Your task to perform on an android device: turn on wifi Image 0: 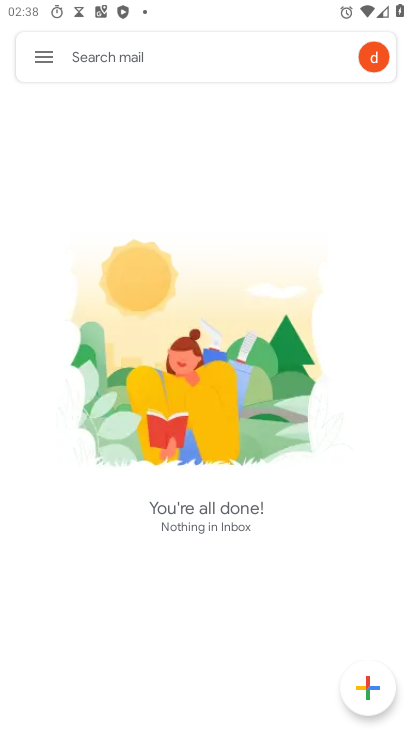
Step 0: press home button
Your task to perform on an android device: turn on wifi Image 1: 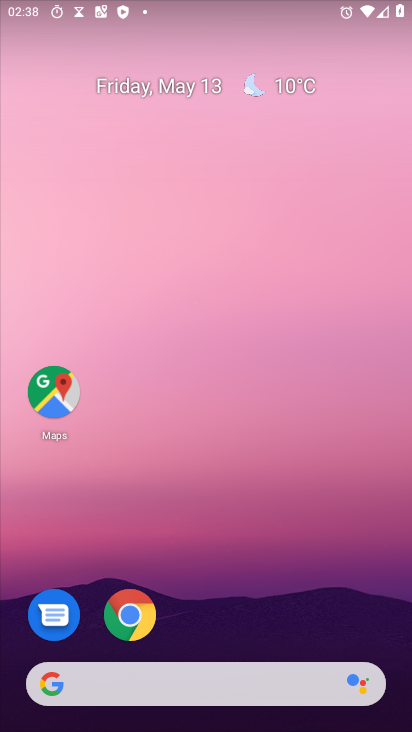
Step 1: drag from (184, 631) to (156, 51)
Your task to perform on an android device: turn on wifi Image 2: 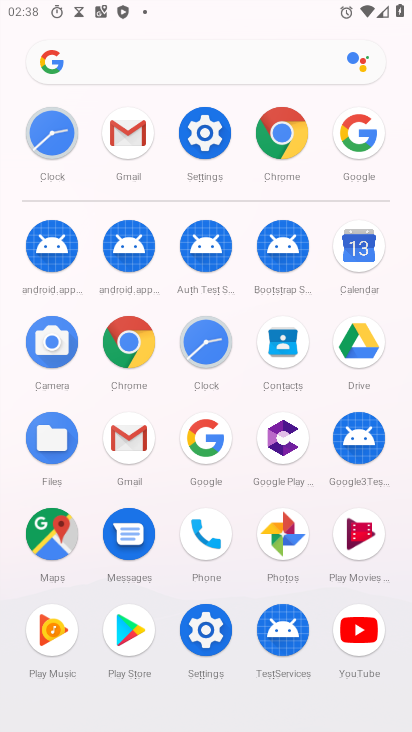
Step 2: click (217, 124)
Your task to perform on an android device: turn on wifi Image 3: 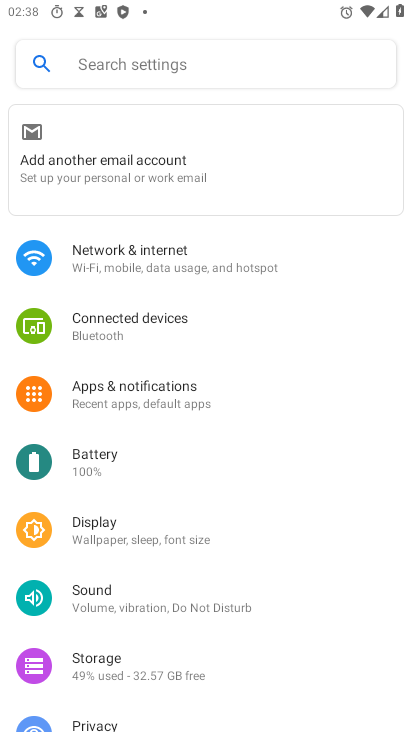
Step 3: click (180, 268)
Your task to perform on an android device: turn on wifi Image 4: 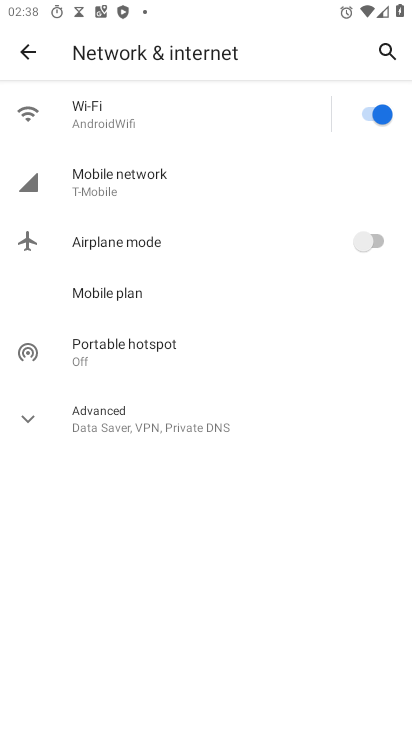
Step 4: task complete